Your task to perform on an android device: change notification settings in the gmail app Image 0: 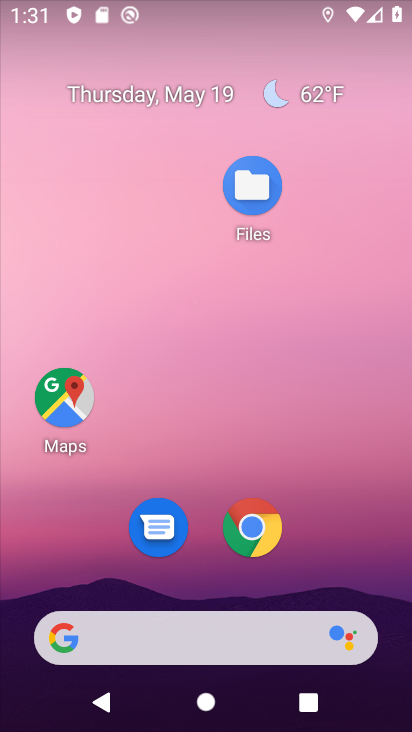
Step 0: drag from (373, 574) to (388, 89)
Your task to perform on an android device: change notification settings in the gmail app Image 1: 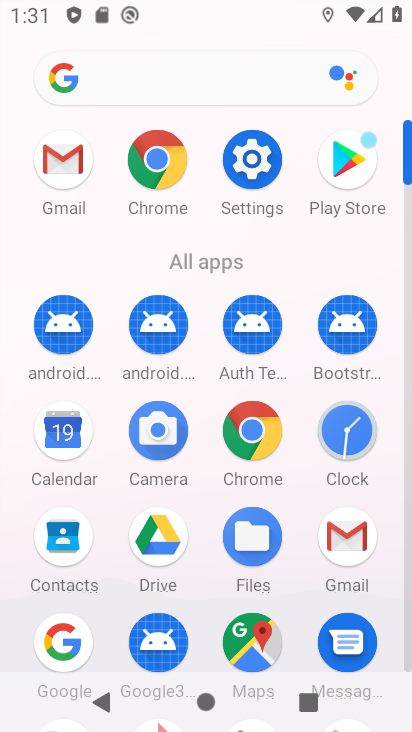
Step 1: click (343, 541)
Your task to perform on an android device: change notification settings in the gmail app Image 2: 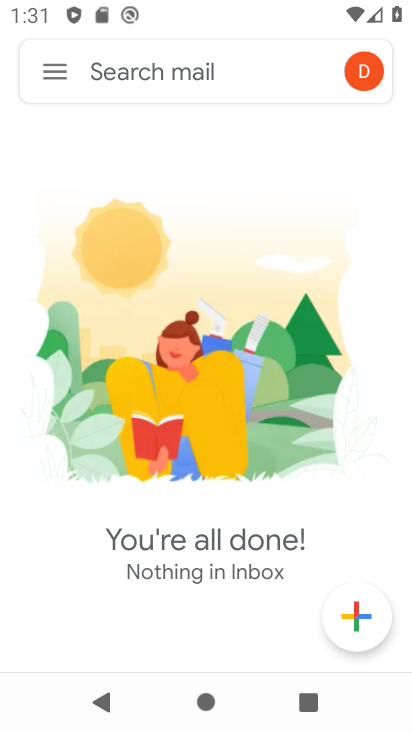
Step 2: click (54, 64)
Your task to perform on an android device: change notification settings in the gmail app Image 3: 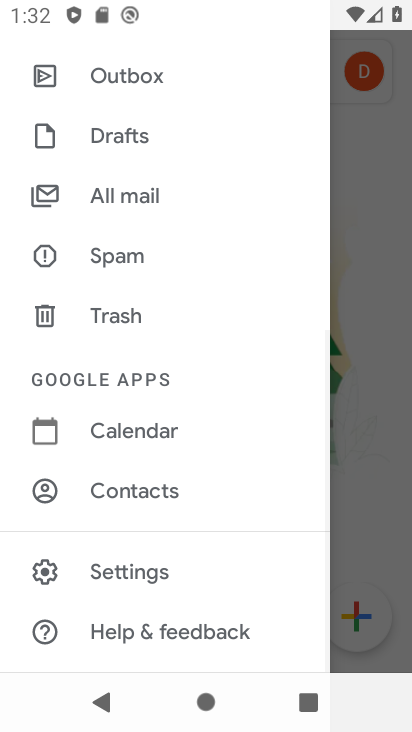
Step 3: drag from (276, 581) to (252, 214)
Your task to perform on an android device: change notification settings in the gmail app Image 4: 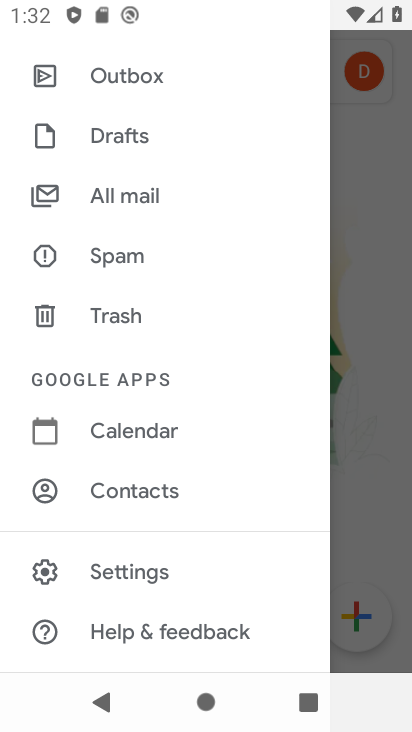
Step 4: click (195, 565)
Your task to perform on an android device: change notification settings in the gmail app Image 5: 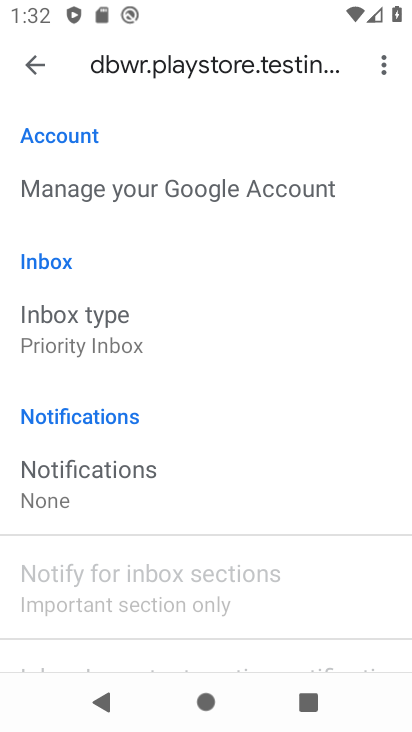
Step 5: click (128, 485)
Your task to perform on an android device: change notification settings in the gmail app Image 6: 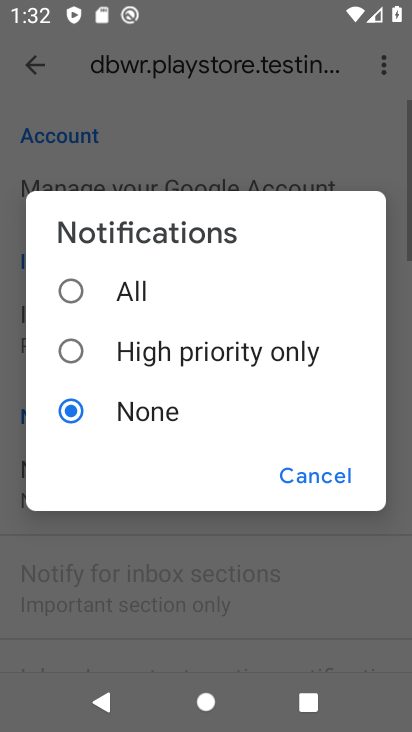
Step 6: click (186, 342)
Your task to perform on an android device: change notification settings in the gmail app Image 7: 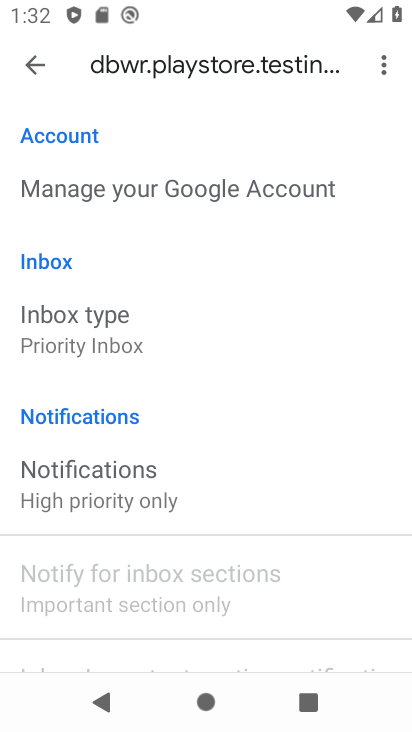
Step 7: task complete